Your task to perform on an android device: install app "Google Photos" Image 0: 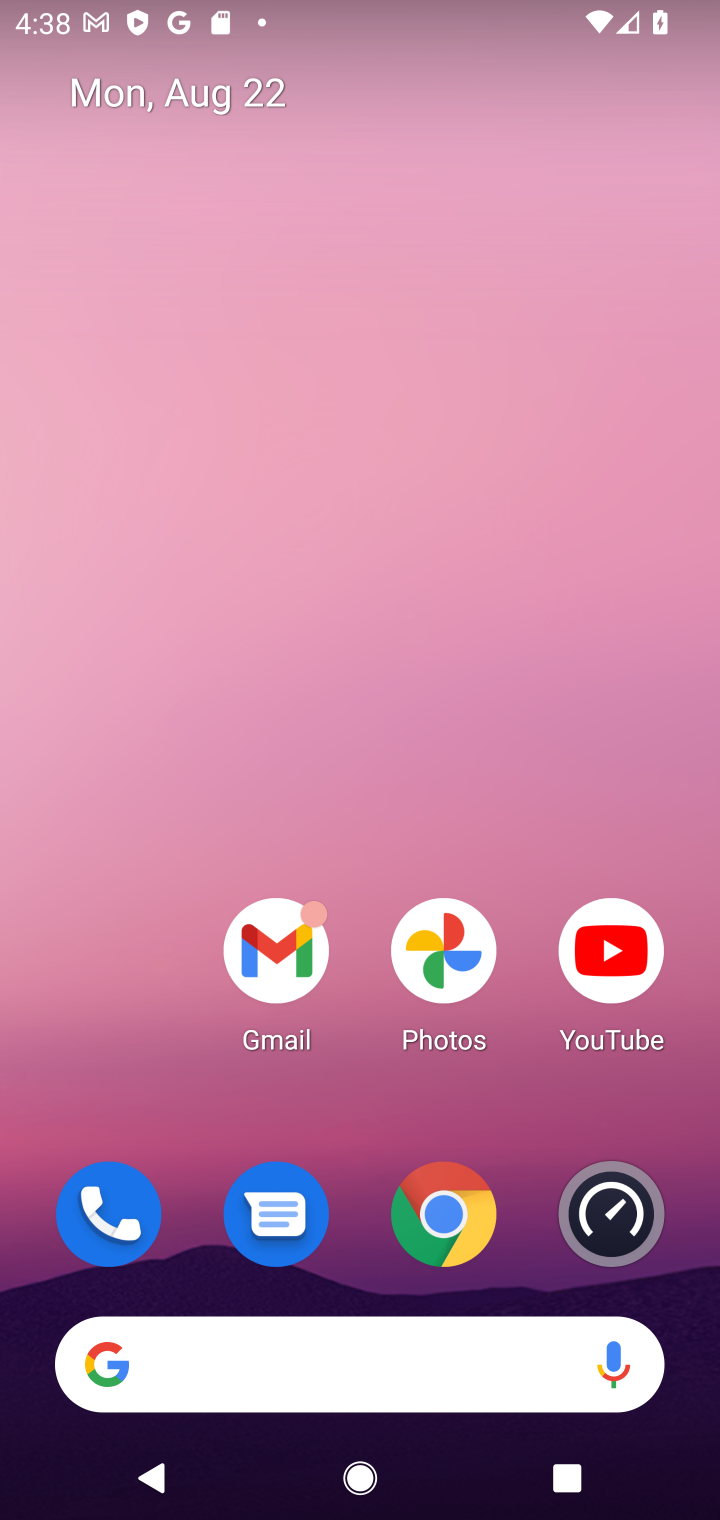
Step 0: click (449, 954)
Your task to perform on an android device: install app "Google Photos" Image 1: 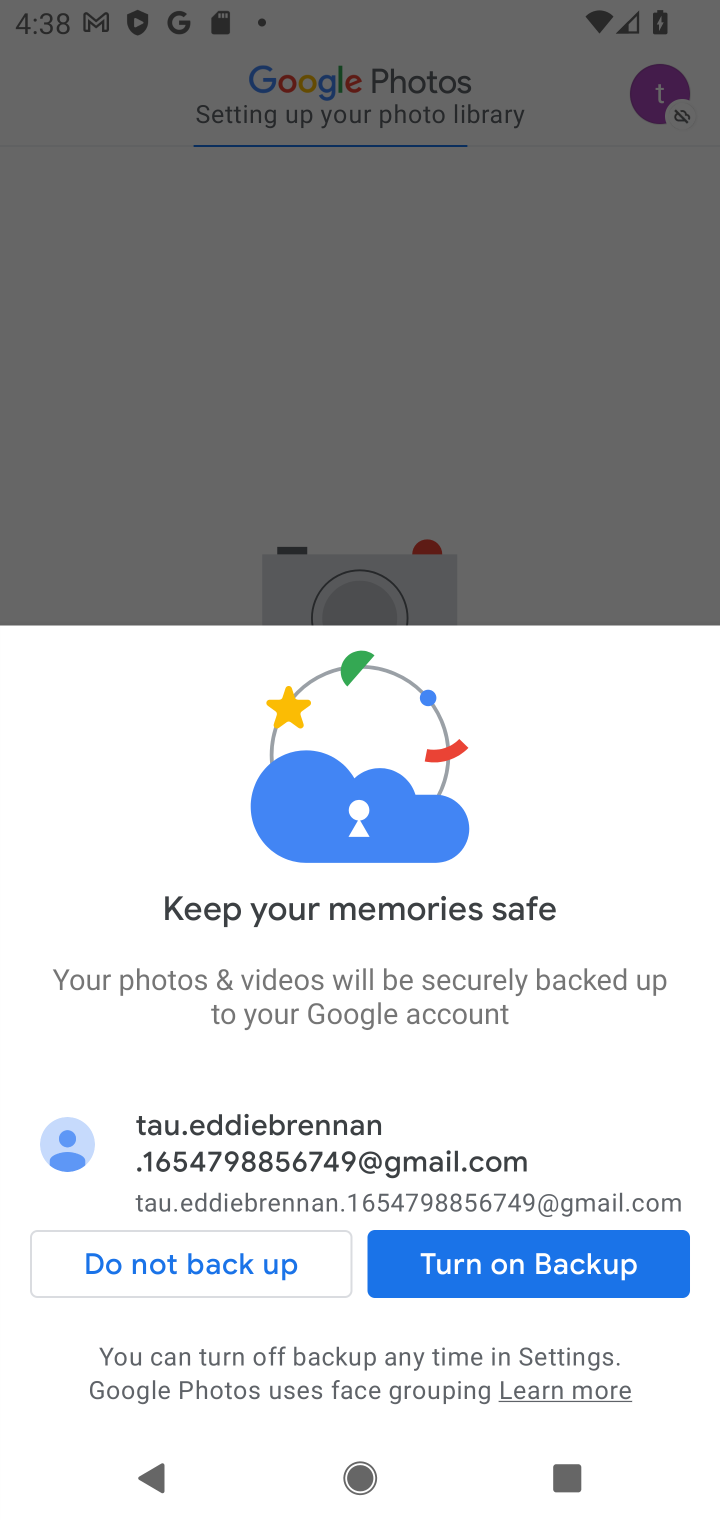
Step 1: task complete